Your task to perform on an android device: open app "Yahoo Mail" (install if not already installed), go to login, and select forgot password Image 0: 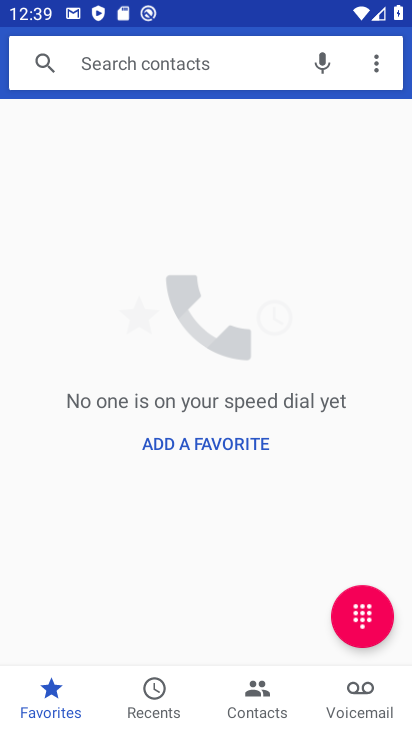
Step 0: press home button
Your task to perform on an android device: open app "Yahoo Mail" (install if not already installed), go to login, and select forgot password Image 1: 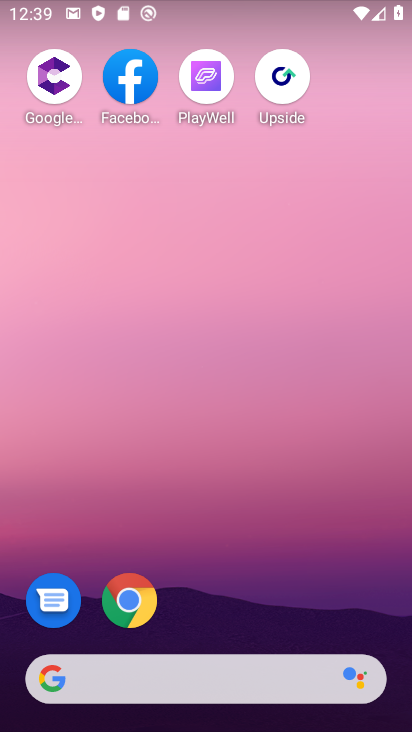
Step 1: drag from (238, 624) to (193, 23)
Your task to perform on an android device: open app "Yahoo Mail" (install if not already installed), go to login, and select forgot password Image 2: 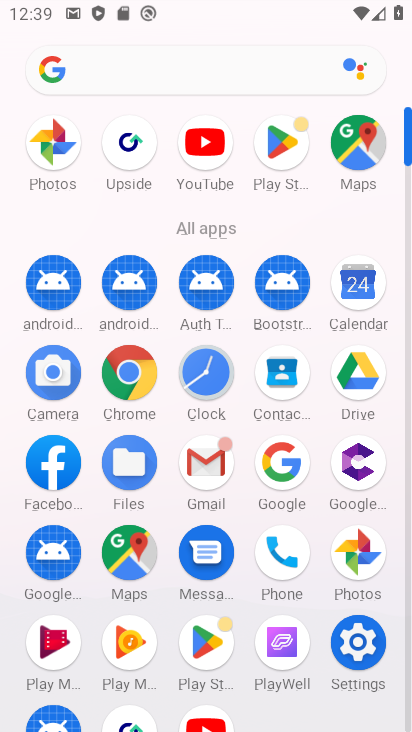
Step 2: click (274, 150)
Your task to perform on an android device: open app "Yahoo Mail" (install if not already installed), go to login, and select forgot password Image 3: 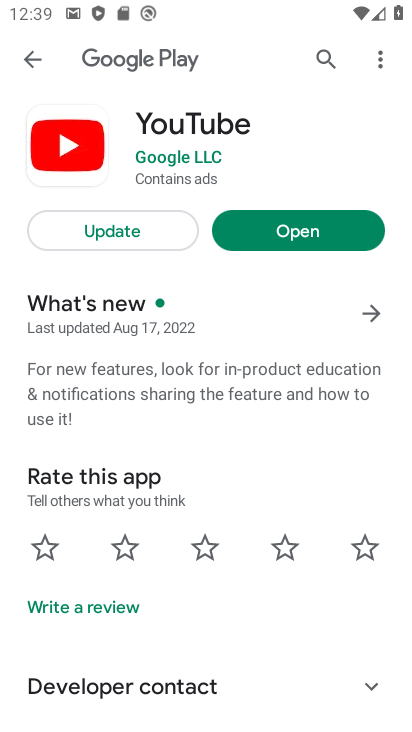
Step 3: click (337, 65)
Your task to perform on an android device: open app "Yahoo Mail" (install if not already installed), go to login, and select forgot password Image 4: 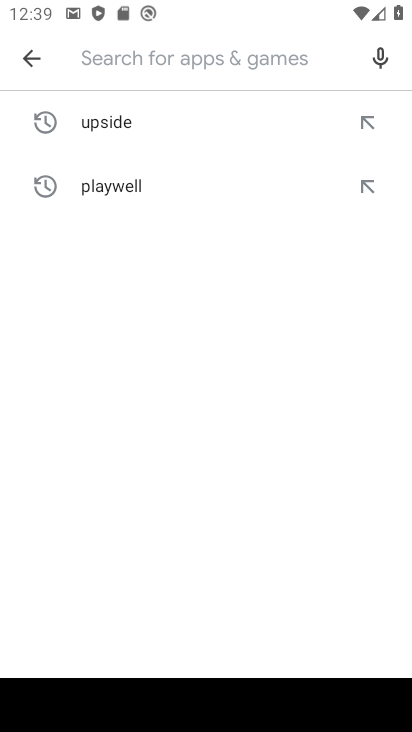
Step 4: type "yahoo mail"
Your task to perform on an android device: open app "Yahoo Mail" (install if not already installed), go to login, and select forgot password Image 5: 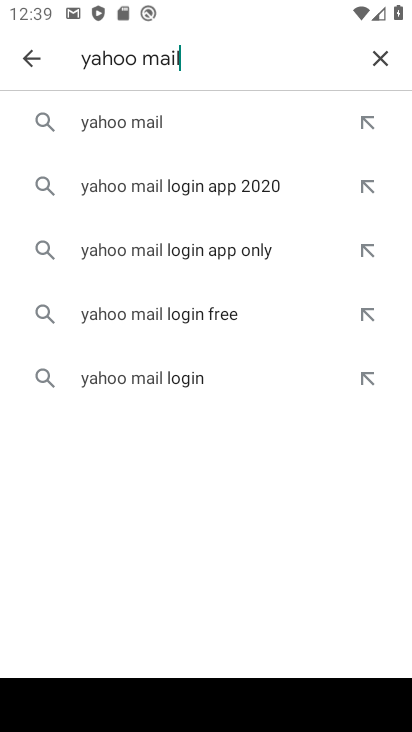
Step 5: click (98, 108)
Your task to perform on an android device: open app "Yahoo Mail" (install if not already installed), go to login, and select forgot password Image 6: 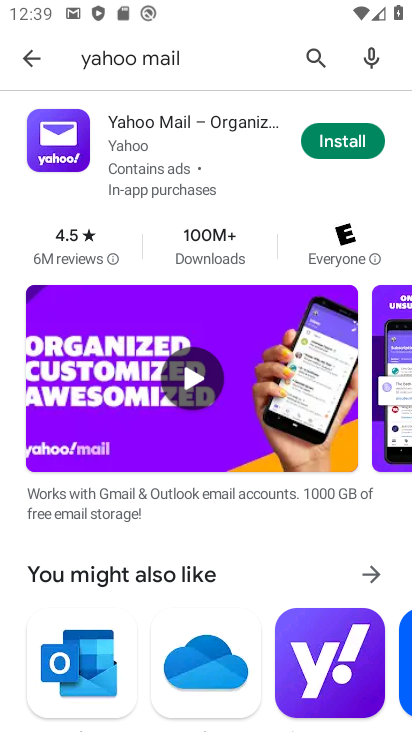
Step 6: click (342, 134)
Your task to perform on an android device: open app "Yahoo Mail" (install if not already installed), go to login, and select forgot password Image 7: 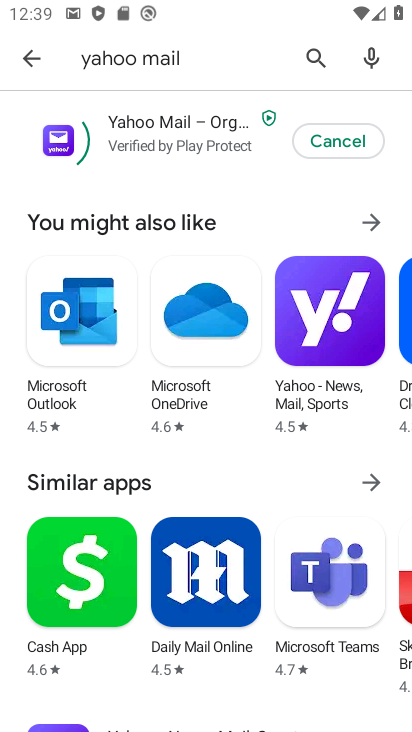
Step 7: task complete